Your task to perform on an android device: change notification settings in the gmail app Image 0: 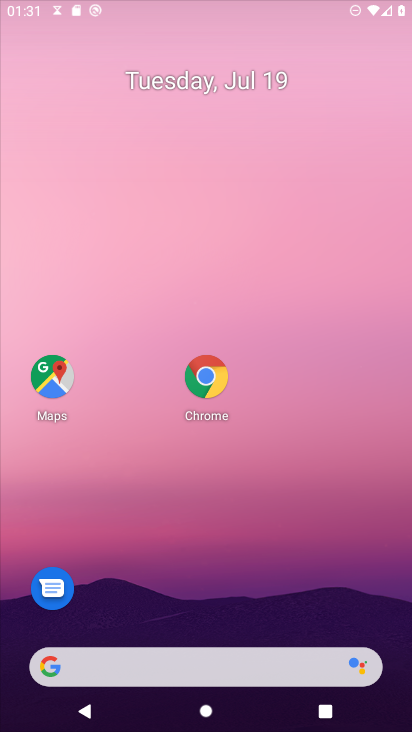
Step 0: press home button
Your task to perform on an android device: change notification settings in the gmail app Image 1: 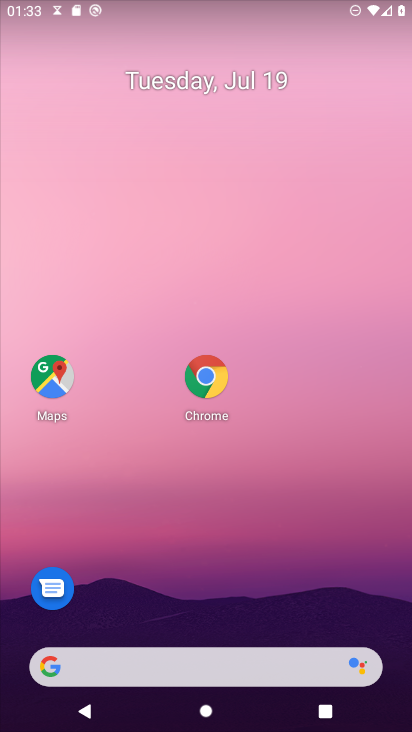
Step 1: drag from (223, 646) to (33, 13)
Your task to perform on an android device: change notification settings in the gmail app Image 2: 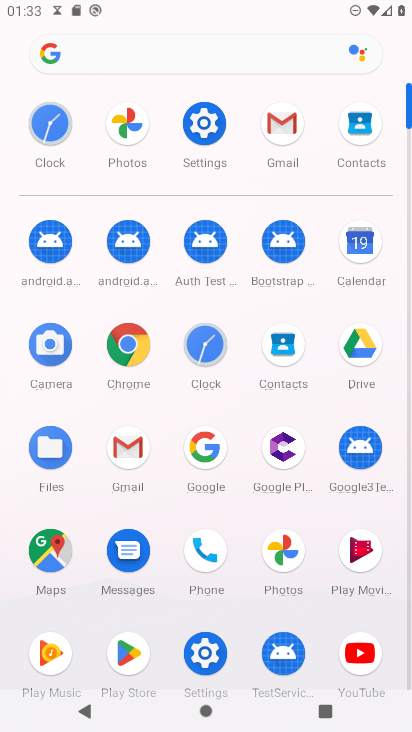
Step 2: click (275, 130)
Your task to perform on an android device: change notification settings in the gmail app Image 3: 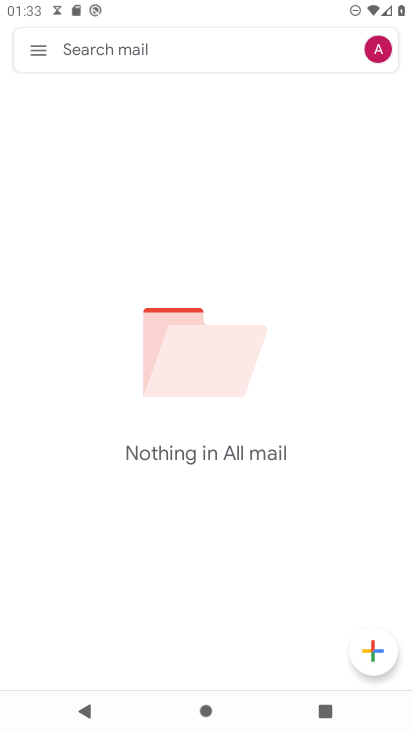
Step 3: click (39, 57)
Your task to perform on an android device: change notification settings in the gmail app Image 4: 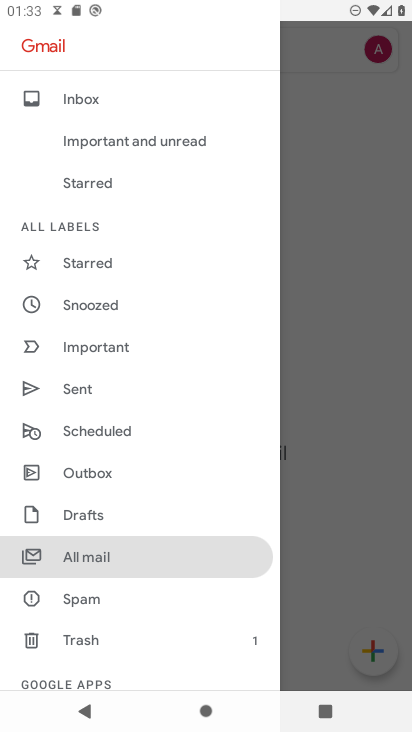
Step 4: drag from (227, 606) to (160, 163)
Your task to perform on an android device: change notification settings in the gmail app Image 5: 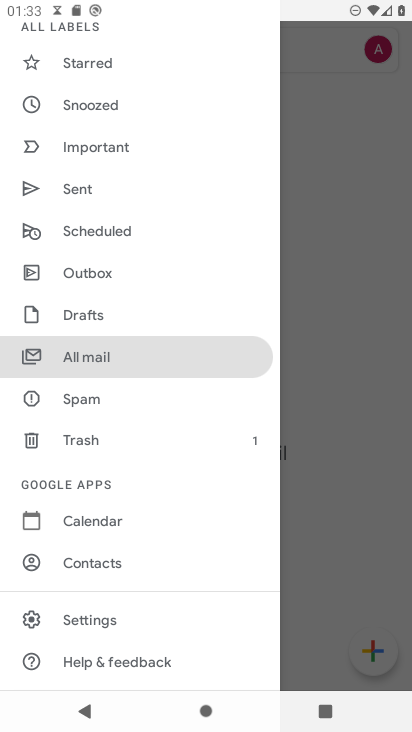
Step 5: click (97, 626)
Your task to perform on an android device: change notification settings in the gmail app Image 6: 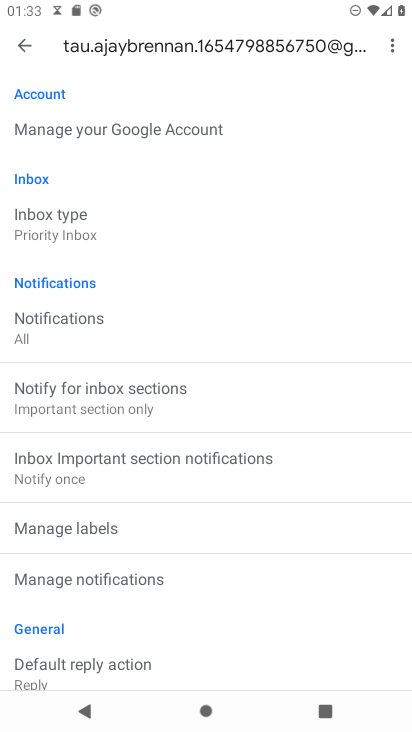
Step 6: click (50, 584)
Your task to perform on an android device: change notification settings in the gmail app Image 7: 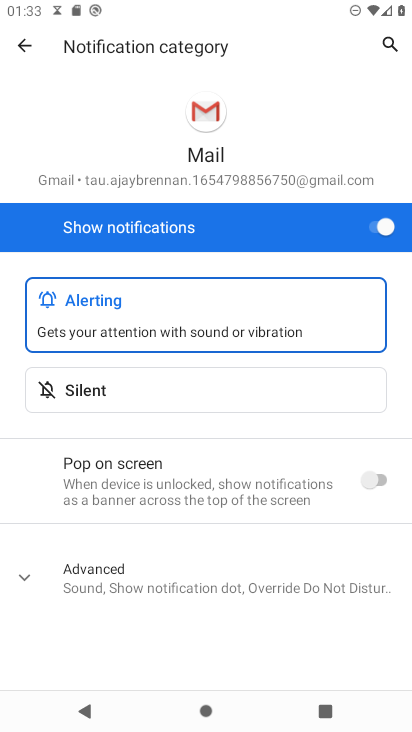
Step 7: click (386, 231)
Your task to perform on an android device: change notification settings in the gmail app Image 8: 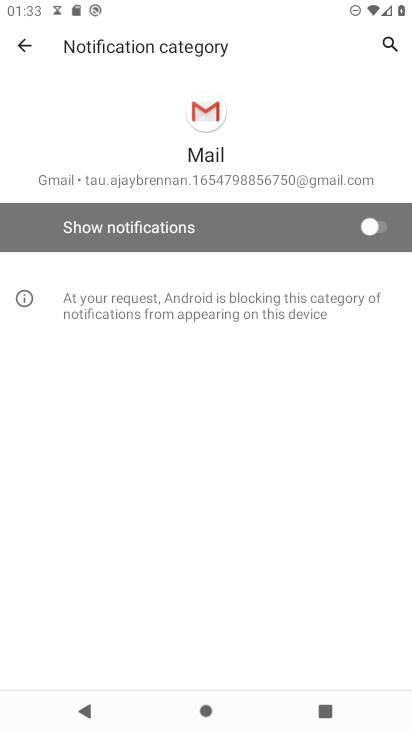
Step 8: task complete